Your task to perform on an android device: change the clock display to show seconds Image 0: 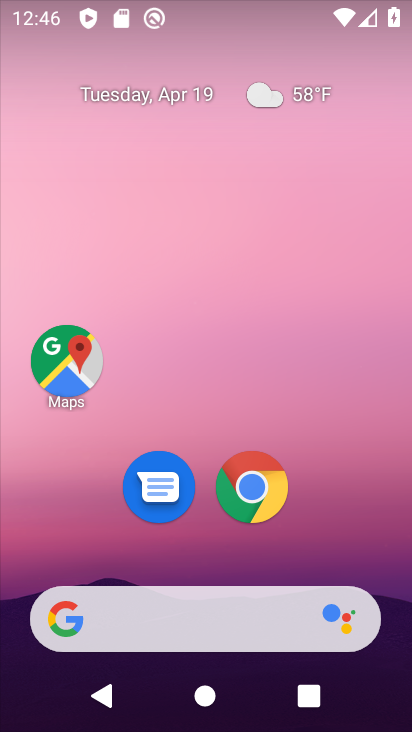
Step 0: drag from (204, 722) to (203, 172)
Your task to perform on an android device: change the clock display to show seconds Image 1: 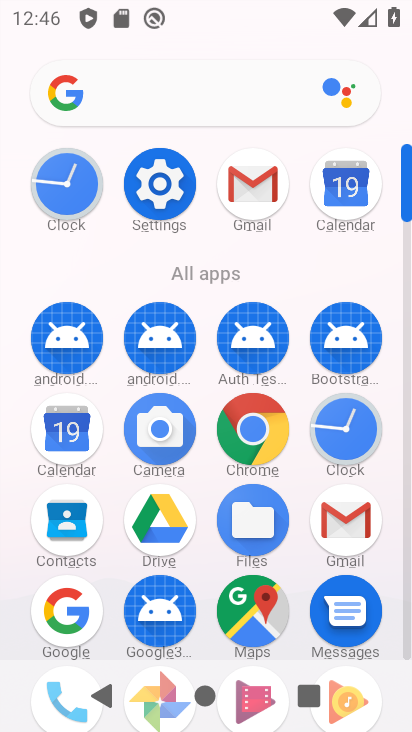
Step 1: click (359, 422)
Your task to perform on an android device: change the clock display to show seconds Image 2: 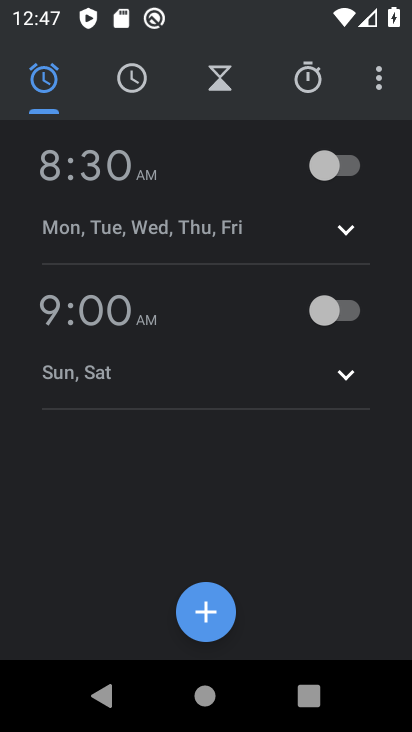
Step 2: click (378, 75)
Your task to perform on an android device: change the clock display to show seconds Image 3: 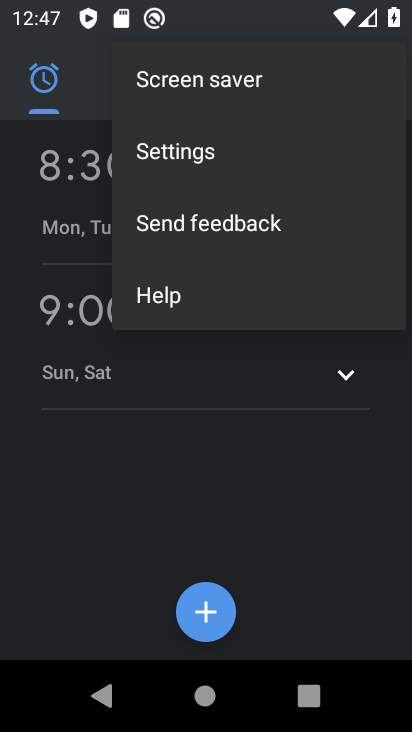
Step 3: click (186, 152)
Your task to perform on an android device: change the clock display to show seconds Image 4: 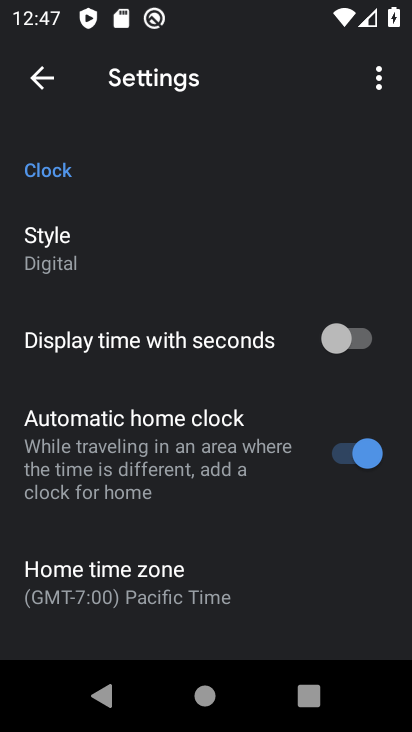
Step 4: click (354, 338)
Your task to perform on an android device: change the clock display to show seconds Image 5: 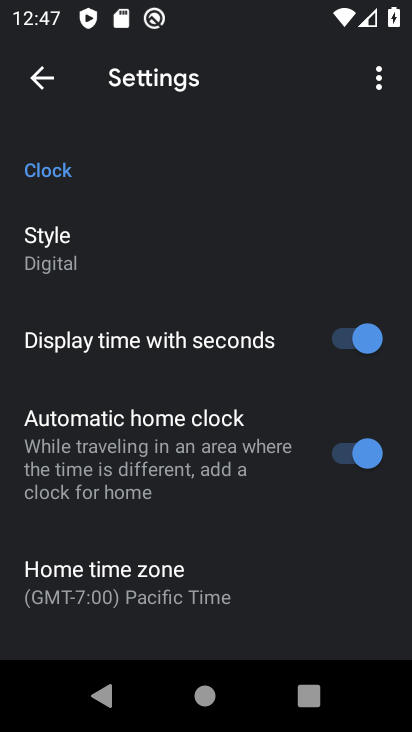
Step 5: task complete